Your task to perform on an android device: What's the weather going to be this weekend? Image 0: 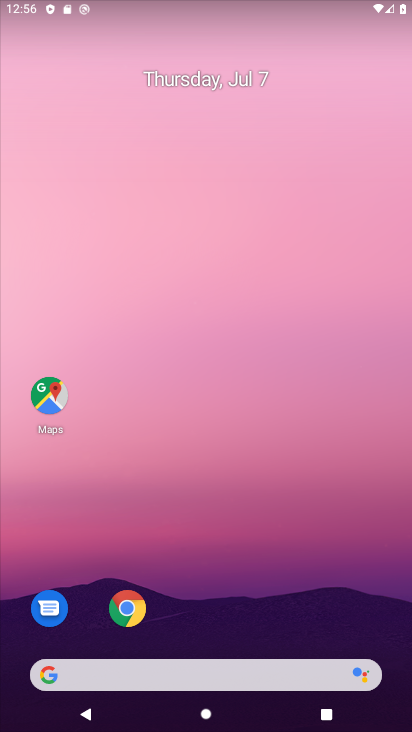
Step 0: click (145, 682)
Your task to perform on an android device: What's the weather going to be this weekend? Image 1: 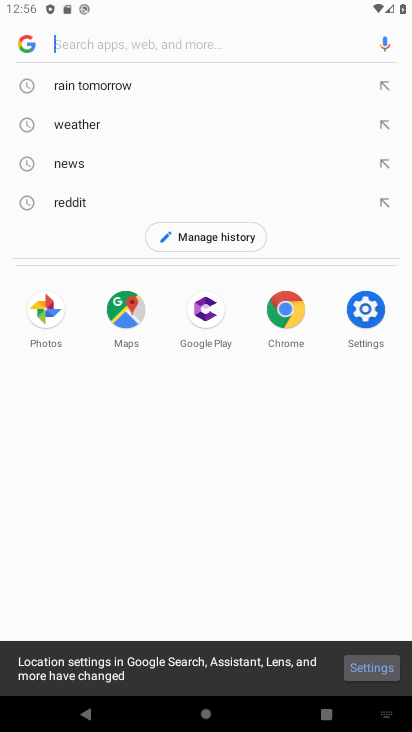
Step 1: click (82, 118)
Your task to perform on an android device: What's the weather going to be this weekend? Image 2: 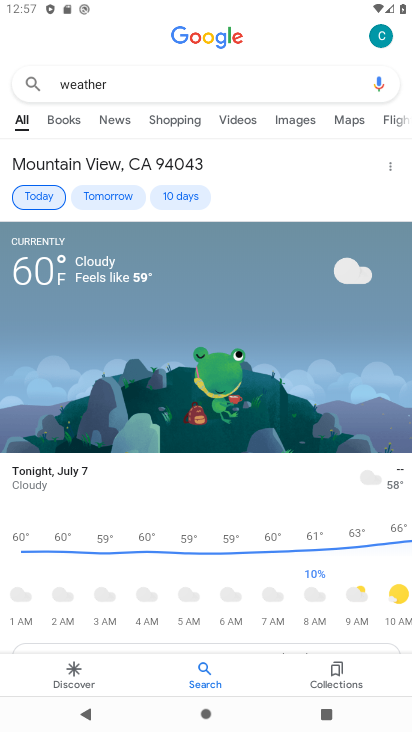
Step 2: click (184, 190)
Your task to perform on an android device: What's the weather going to be this weekend? Image 3: 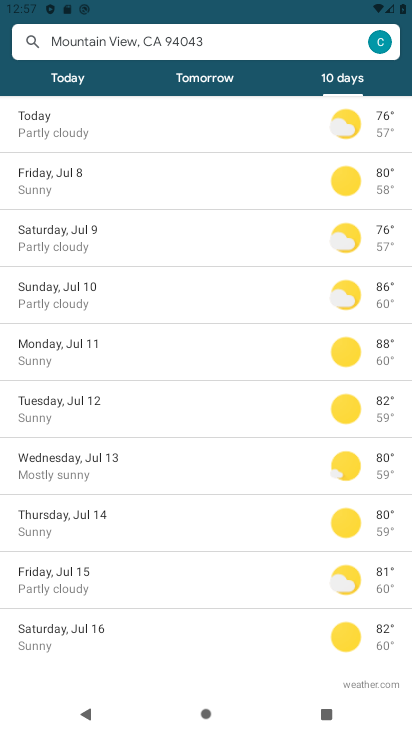
Step 3: task complete